Your task to perform on an android device: install app "Google Find My Device" Image 0: 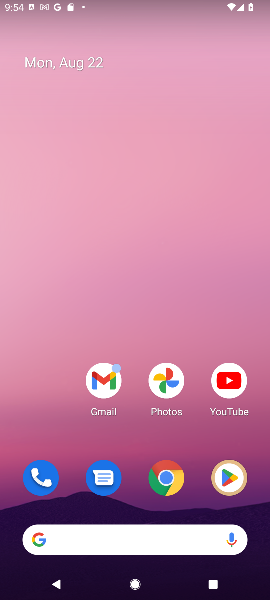
Step 0: click (238, 476)
Your task to perform on an android device: install app "Google Find My Device" Image 1: 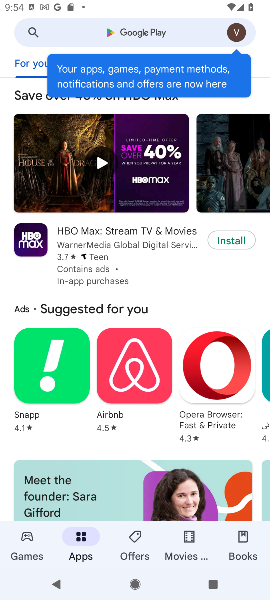
Step 1: click (150, 39)
Your task to perform on an android device: install app "Google Find My Device" Image 2: 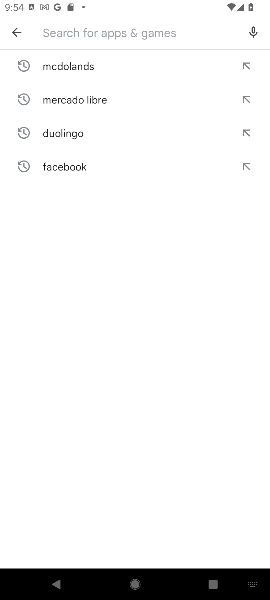
Step 2: type "find my device"
Your task to perform on an android device: install app "Google Find My Device" Image 3: 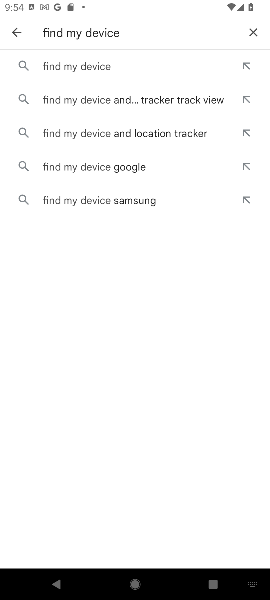
Step 3: click (97, 56)
Your task to perform on an android device: install app "Google Find My Device" Image 4: 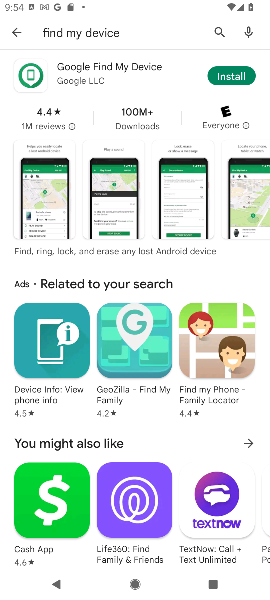
Step 4: click (214, 85)
Your task to perform on an android device: install app "Google Find My Device" Image 5: 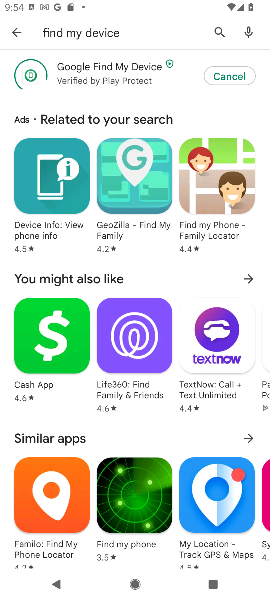
Step 5: task complete